Your task to perform on an android device: turn on notifications settings in the gmail app Image 0: 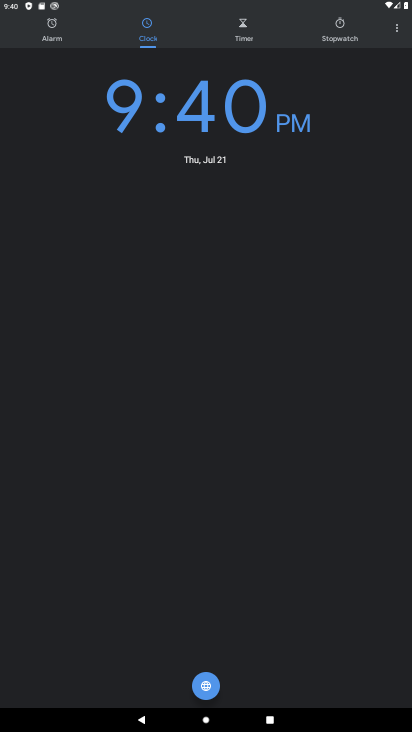
Step 0: press home button
Your task to perform on an android device: turn on notifications settings in the gmail app Image 1: 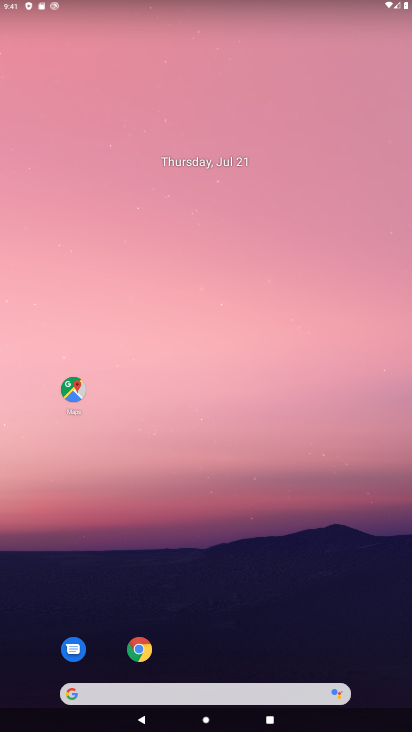
Step 1: click (260, 629)
Your task to perform on an android device: turn on notifications settings in the gmail app Image 2: 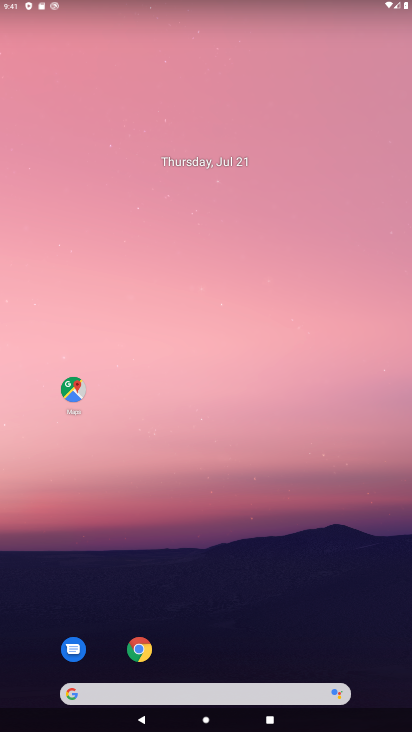
Step 2: drag from (260, 629) to (286, 217)
Your task to perform on an android device: turn on notifications settings in the gmail app Image 3: 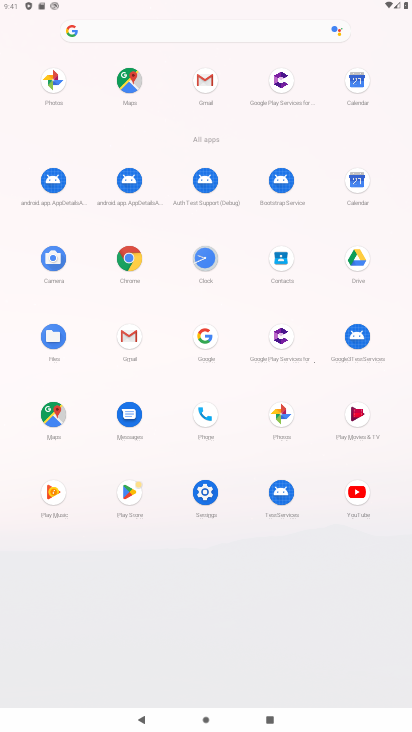
Step 3: click (123, 334)
Your task to perform on an android device: turn on notifications settings in the gmail app Image 4: 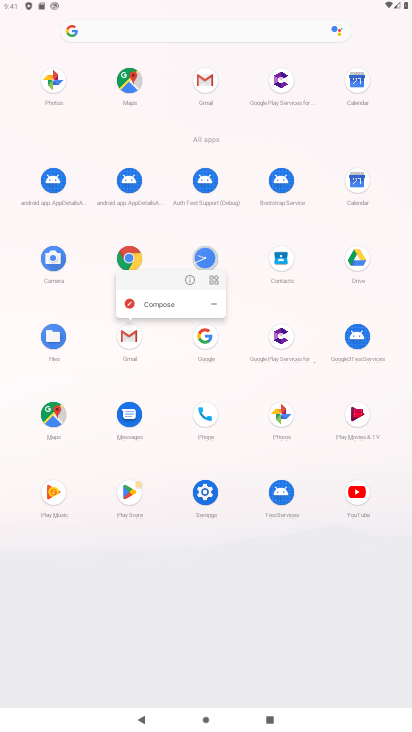
Step 4: click (188, 278)
Your task to perform on an android device: turn on notifications settings in the gmail app Image 5: 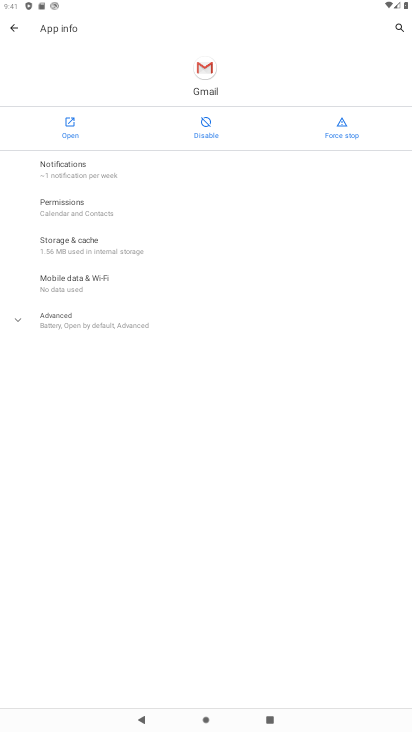
Step 5: click (203, 174)
Your task to perform on an android device: turn on notifications settings in the gmail app Image 6: 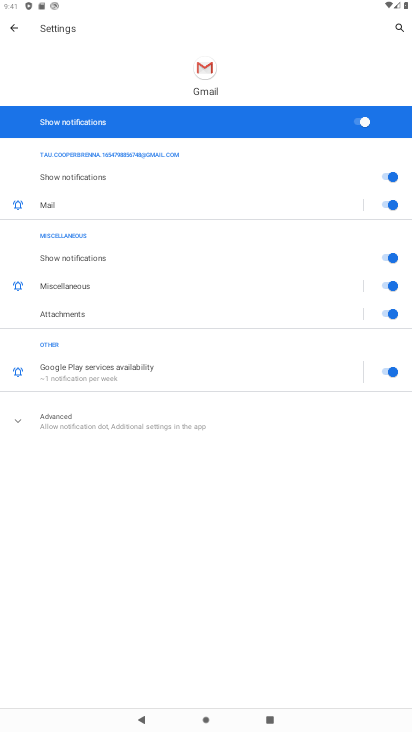
Step 6: click (388, 316)
Your task to perform on an android device: turn on notifications settings in the gmail app Image 7: 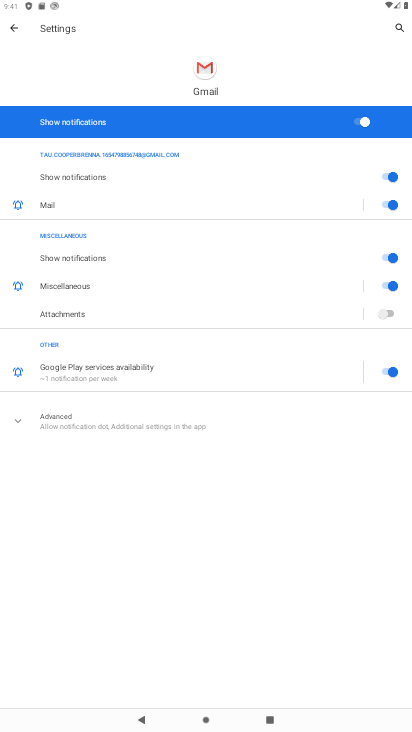
Step 7: click (391, 290)
Your task to perform on an android device: turn on notifications settings in the gmail app Image 8: 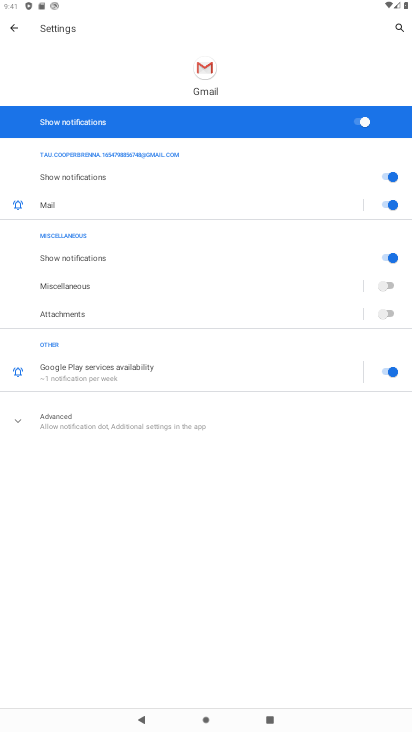
Step 8: task complete